Your task to perform on an android device: Open eBay Image 0: 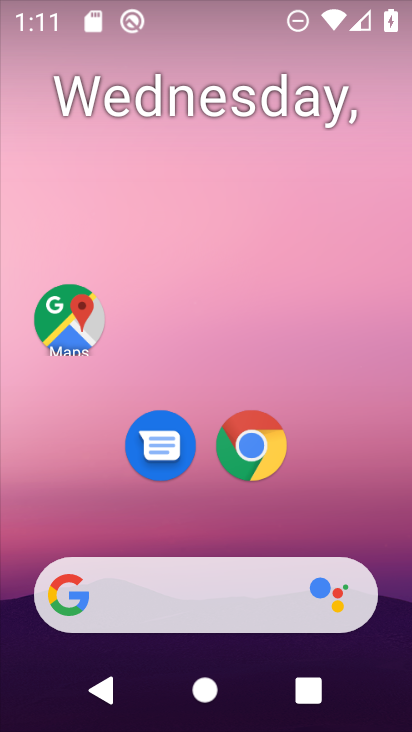
Step 0: drag from (394, 616) to (226, 32)
Your task to perform on an android device: Open eBay Image 1: 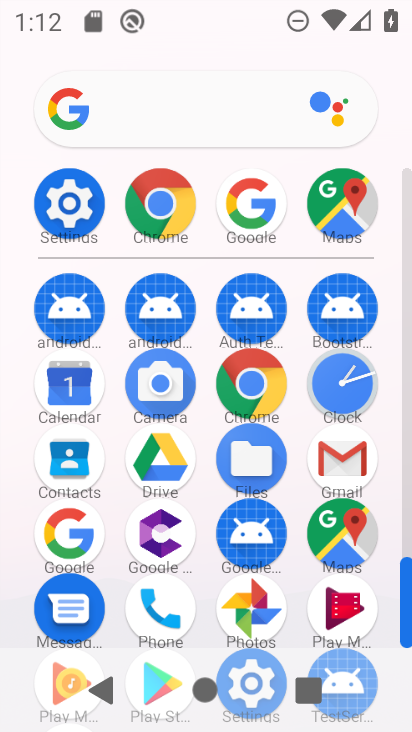
Step 1: click (61, 537)
Your task to perform on an android device: Open eBay Image 2: 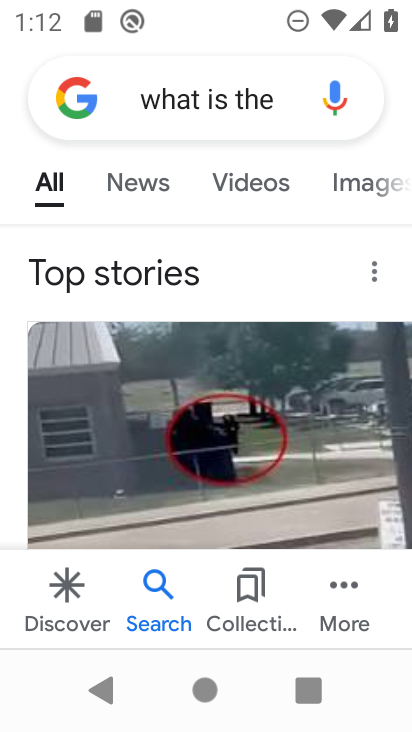
Step 2: press back button
Your task to perform on an android device: Open eBay Image 3: 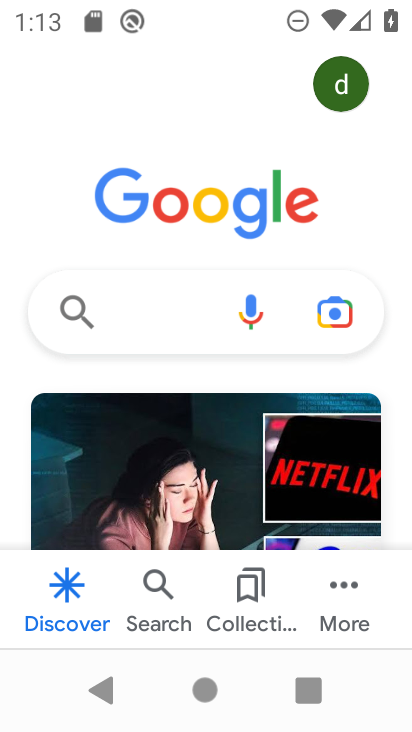
Step 3: click (143, 300)
Your task to perform on an android device: Open eBay Image 4: 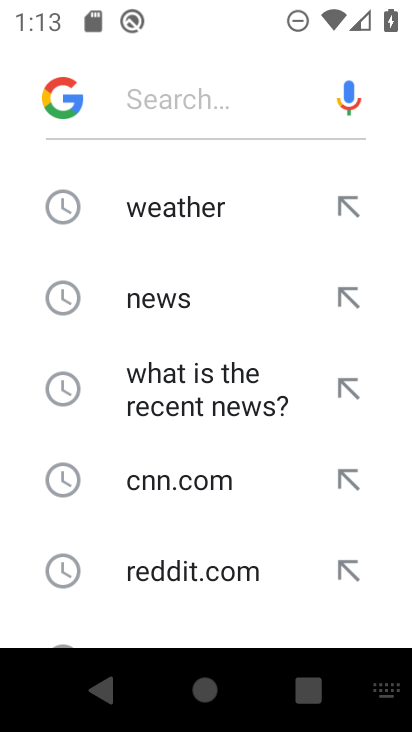
Step 4: drag from (161, 565) to (247, 91)
Your task to perform on an android device: Open eBay Image 5: 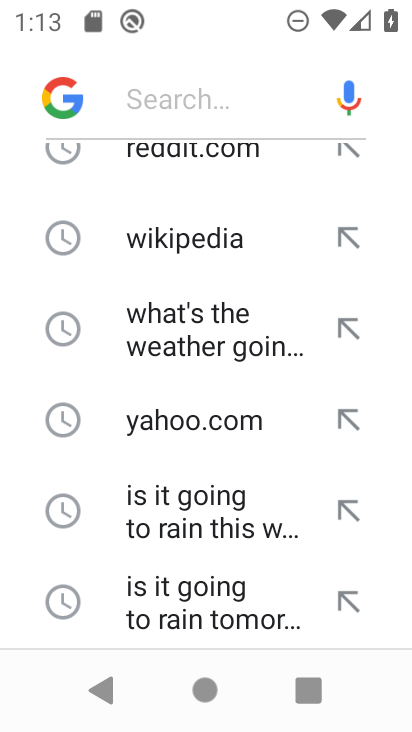
Step 5: drag from (164, 494) to (194, 106)
Your task to perform on an android device: Open eBay Image 6: 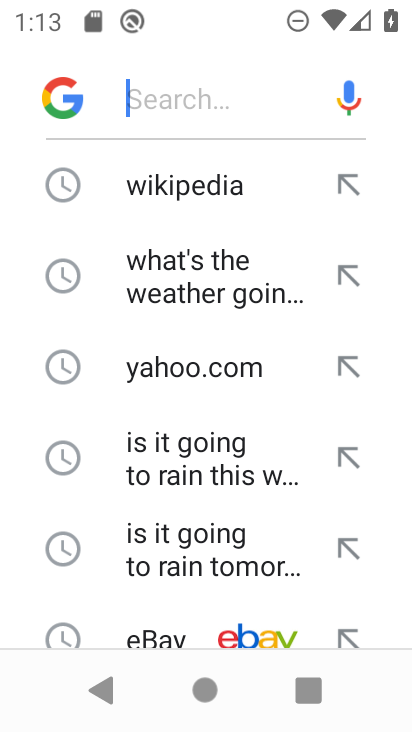
Step 6: click (177, 633)
Your task to perform on an android device: Open eBay Image 7: 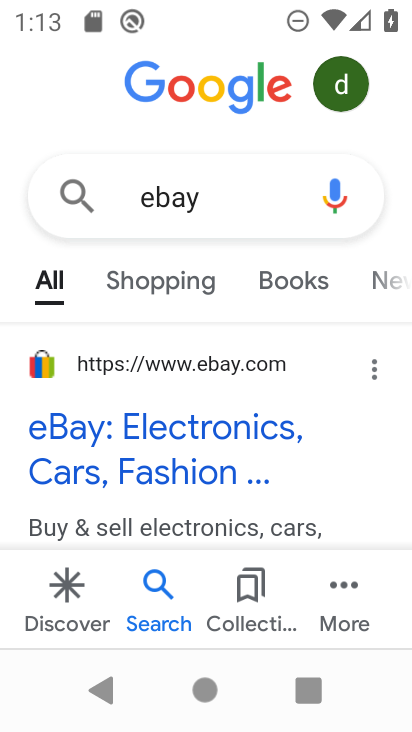
Step 7: task complete